Your task to perform on an android device: turn pop-ups on in chrome Image 0: 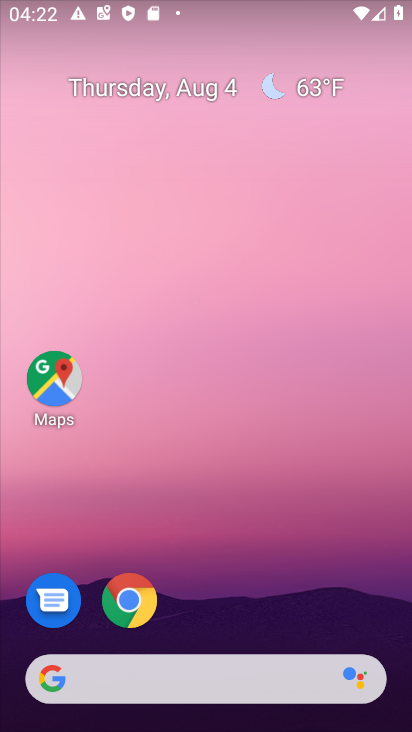
Step 0: drag from (265, 602) to (305, 123)
Your task to perform on an android device: turn pop-ups on in chrome Image 1: 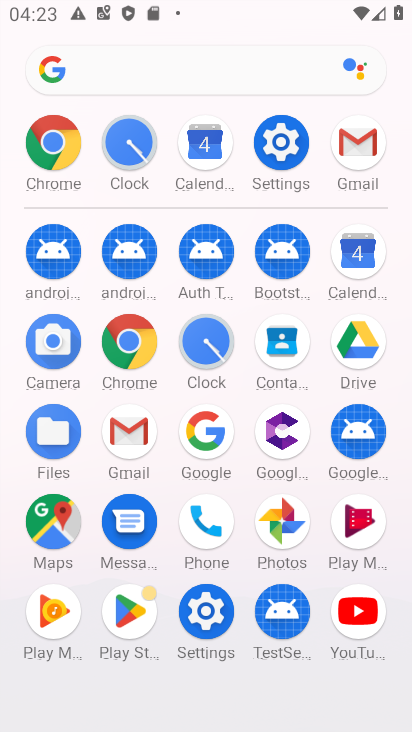
Step 1: click (127, 337)
Your task to perform on an android device: turn pop-ups on in chrome Image 2: 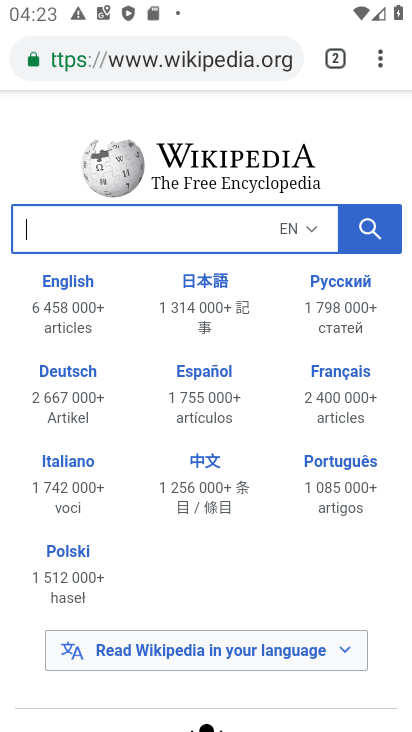
Step 2: drag from (387, 42) to (198, 605)
Your task to perform on an android device: turn pop-ups on in chrome Image 3: 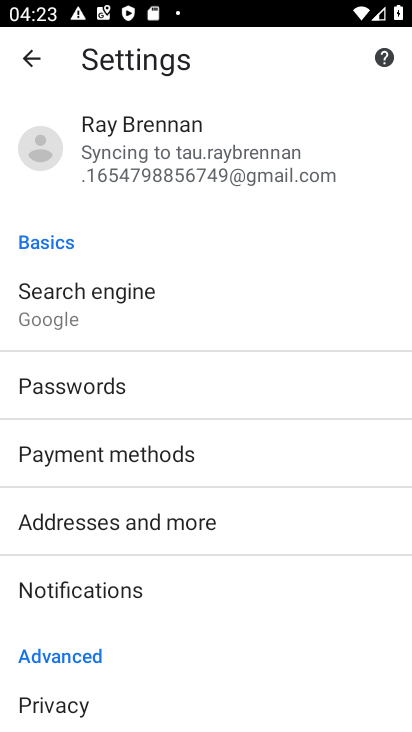
Step 3: drag from (185, 590) to (272, 204)
Your task to perform on an android device: turn pop-ups on in chrome Image 4: 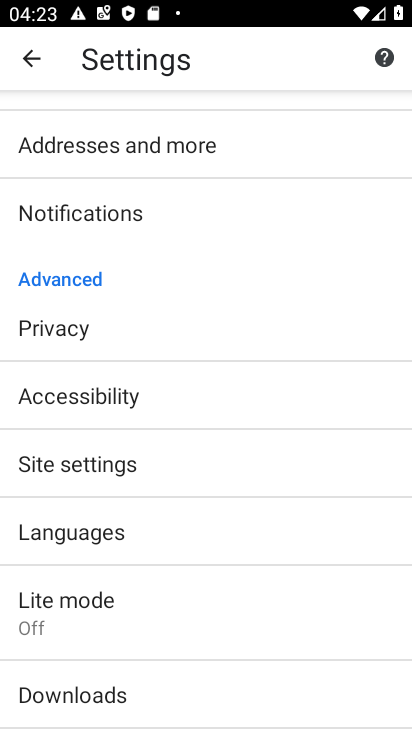
Step 4: click (109, 456)
Your task to perform on an android device: turn pop-ups on in chrome Image 5: 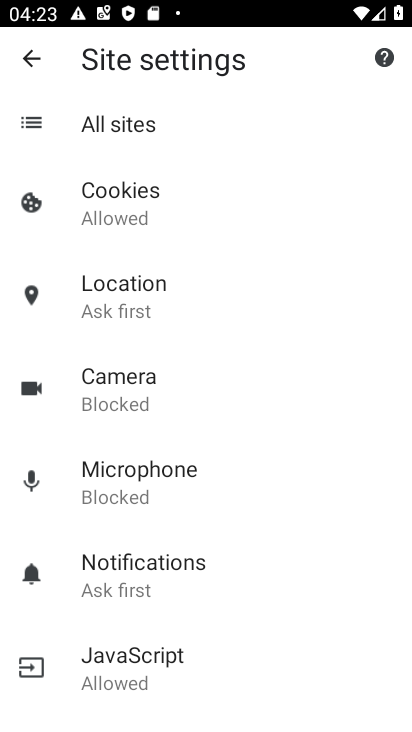
Step 5: drag from (197, 589) to (267, 321)
Your task to perform on an android device: turn pop-ups on in chrome Image 6: 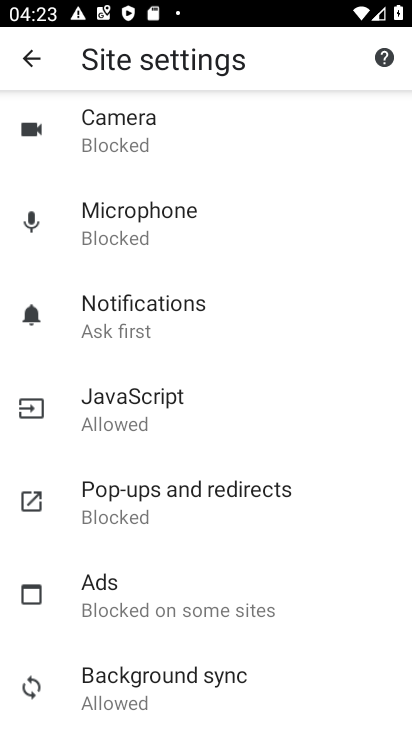
Step 6: click (137, 488)
Your task to perform on an android device: turn pop-ups on in chrome Image 7: 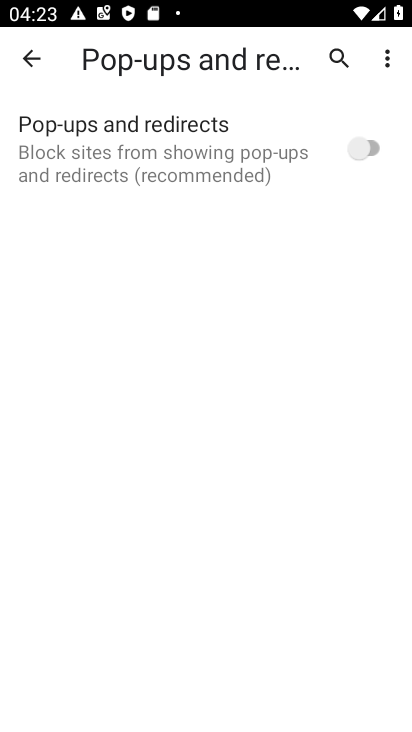
Step 7: click (373, 142)
Your task to perform on an android device: turn pop-ups on in chrome Image 8: 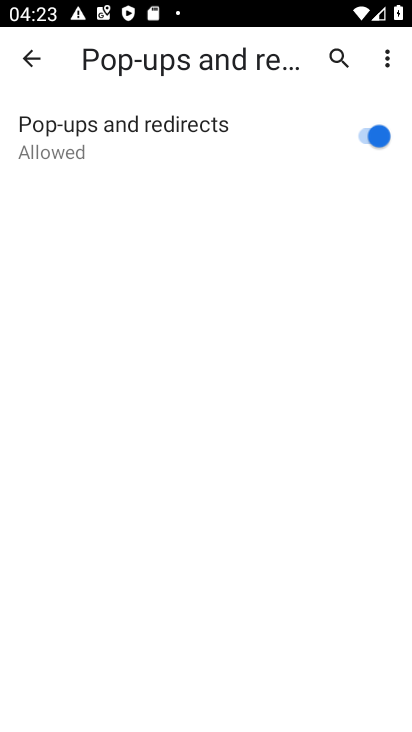
Step 8: task complete